Your task to perform on an android device: Open Chrome and go to the settings page Image 0: 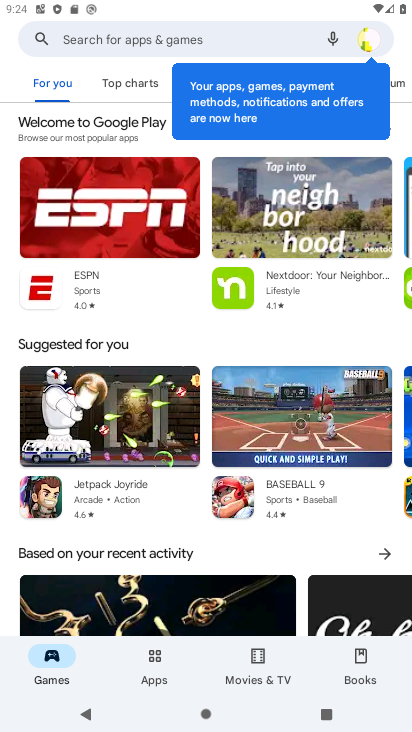
Step 0: press home button
Your task to perform on an android device: Open Chrome and go to the settings page Image 1: 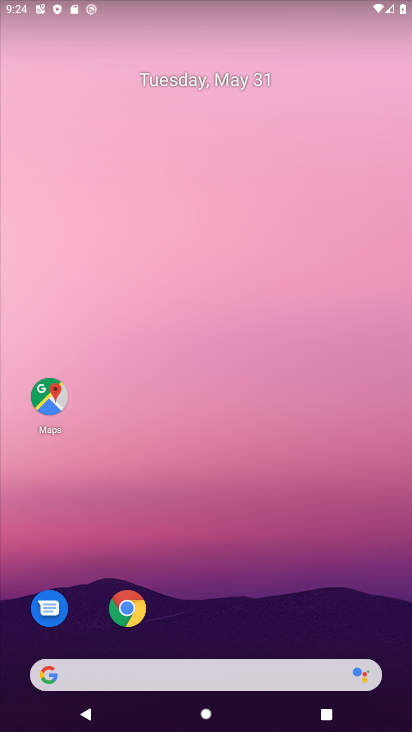
Step 1: click (138, 624)
Your task to perform on an android device: Open Chrome and go to the settings page Image 2: 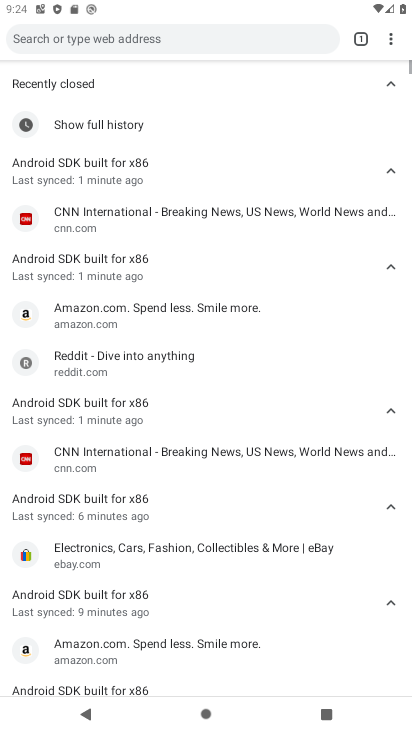
Step 2: task complete